Your task to perform on an android device: change the clock display to show seconds Image 0: 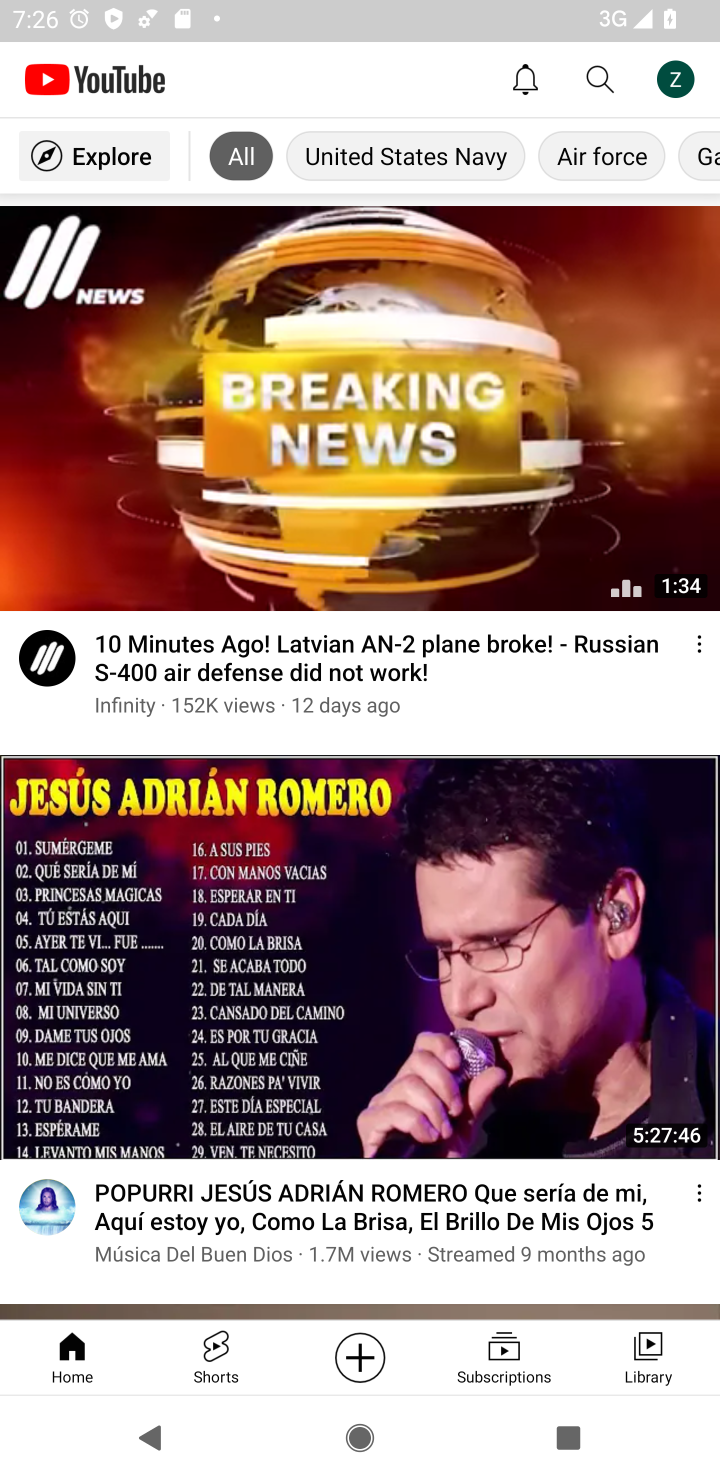
Step 0: press home button
Your task to perform on an android device: change the clock display to show seconds Image 1: 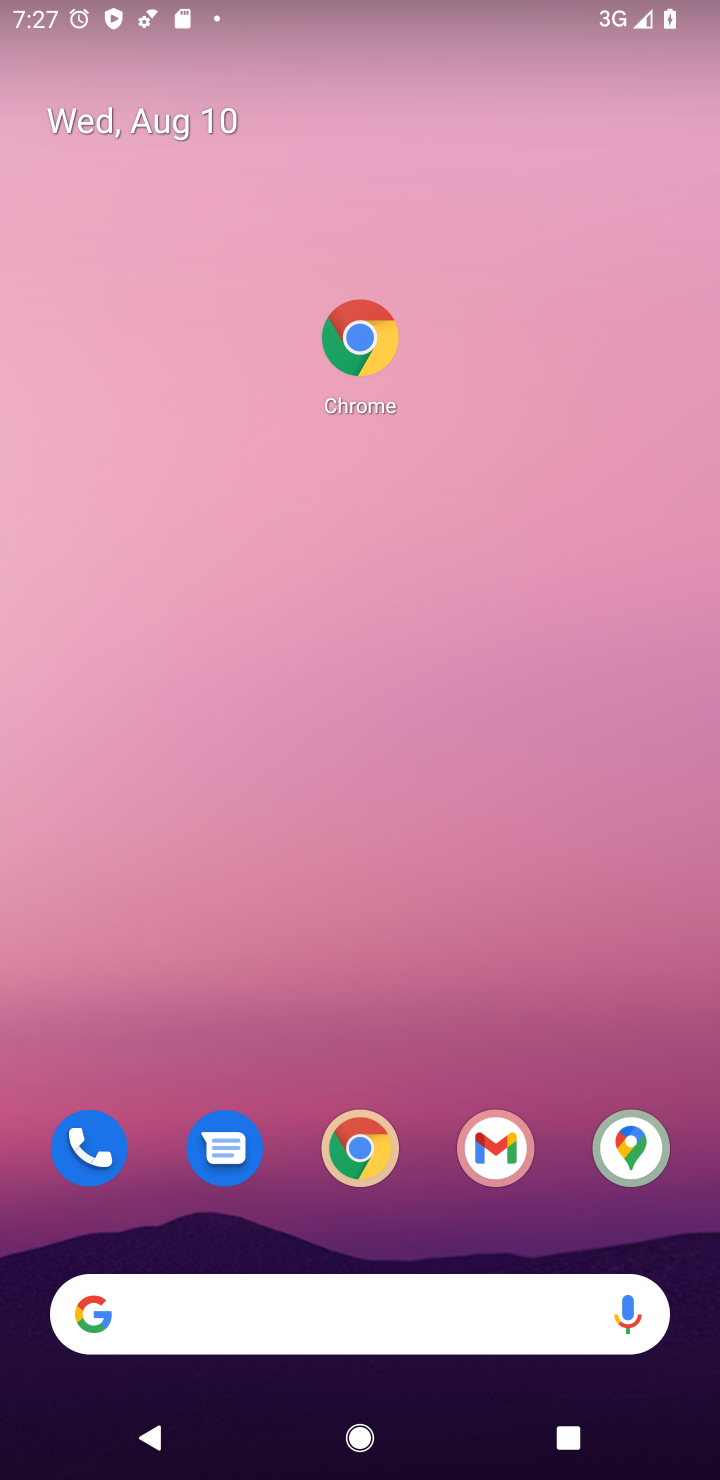
Step 1: drag from (427, 1111) to (583, 290)
Your task to perform on an android device: change the clock display to show seconds Image 2: 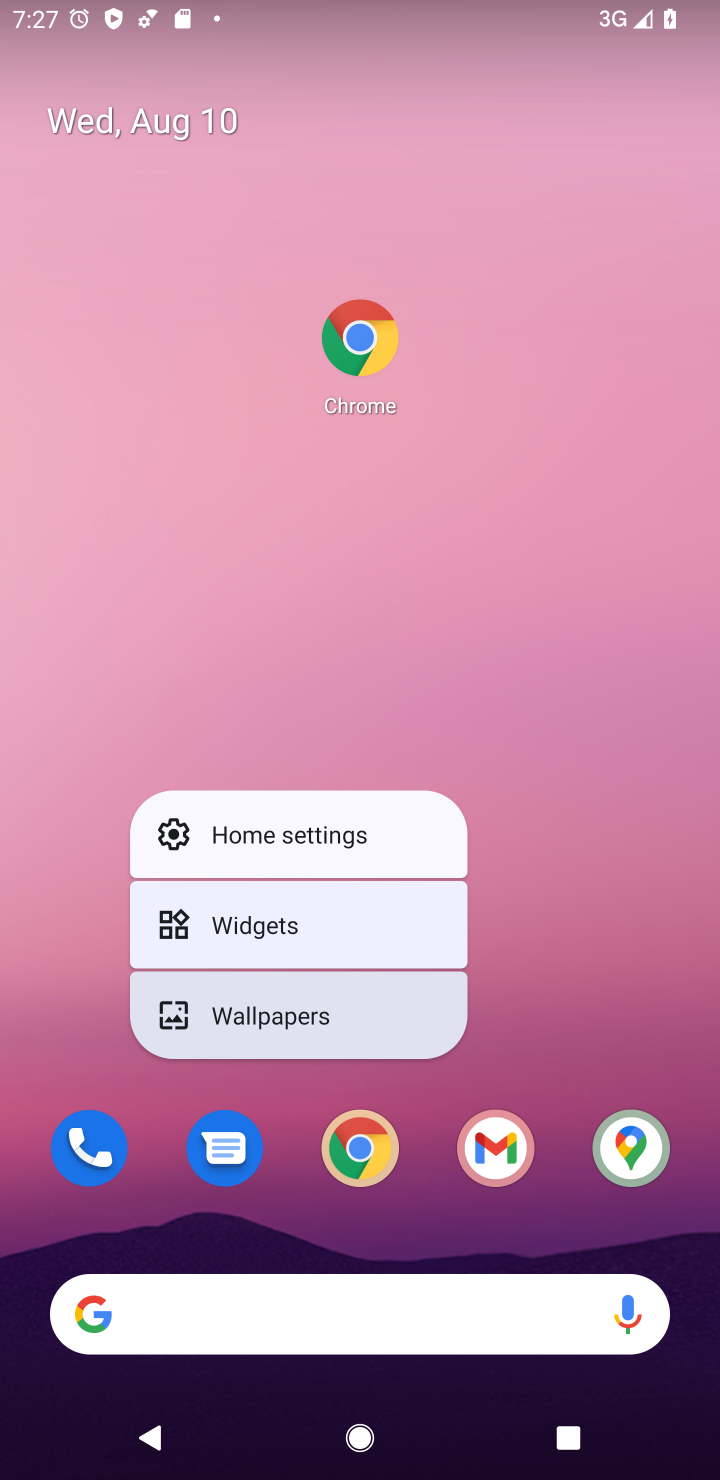
Step 2: drag from (578, 828) to (639, 0)
Your task to perform on an android device: change the clock display to show seconds Image 3: 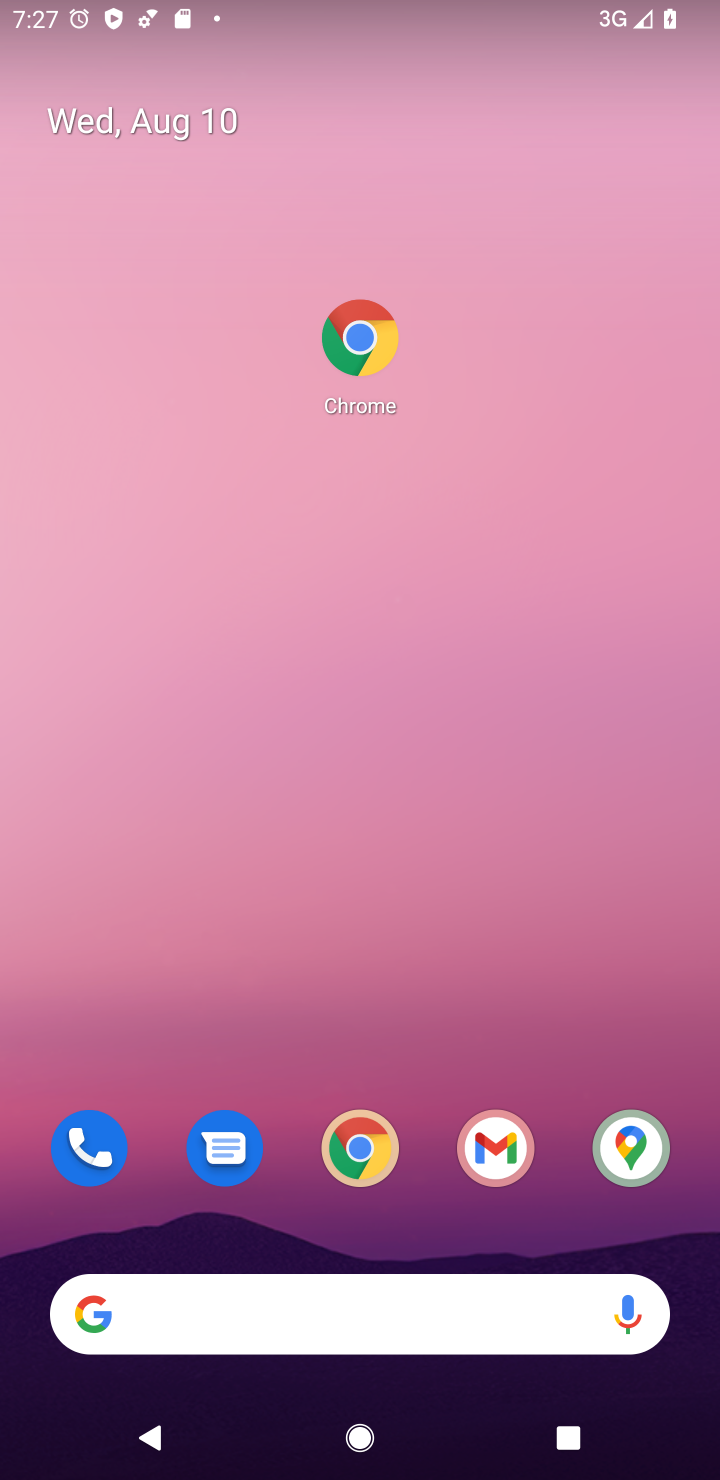
Step 3: drag from (206, 1040) to (160, 20)
Your task to perform on an android device: change the clock display to show seconds Image 4: 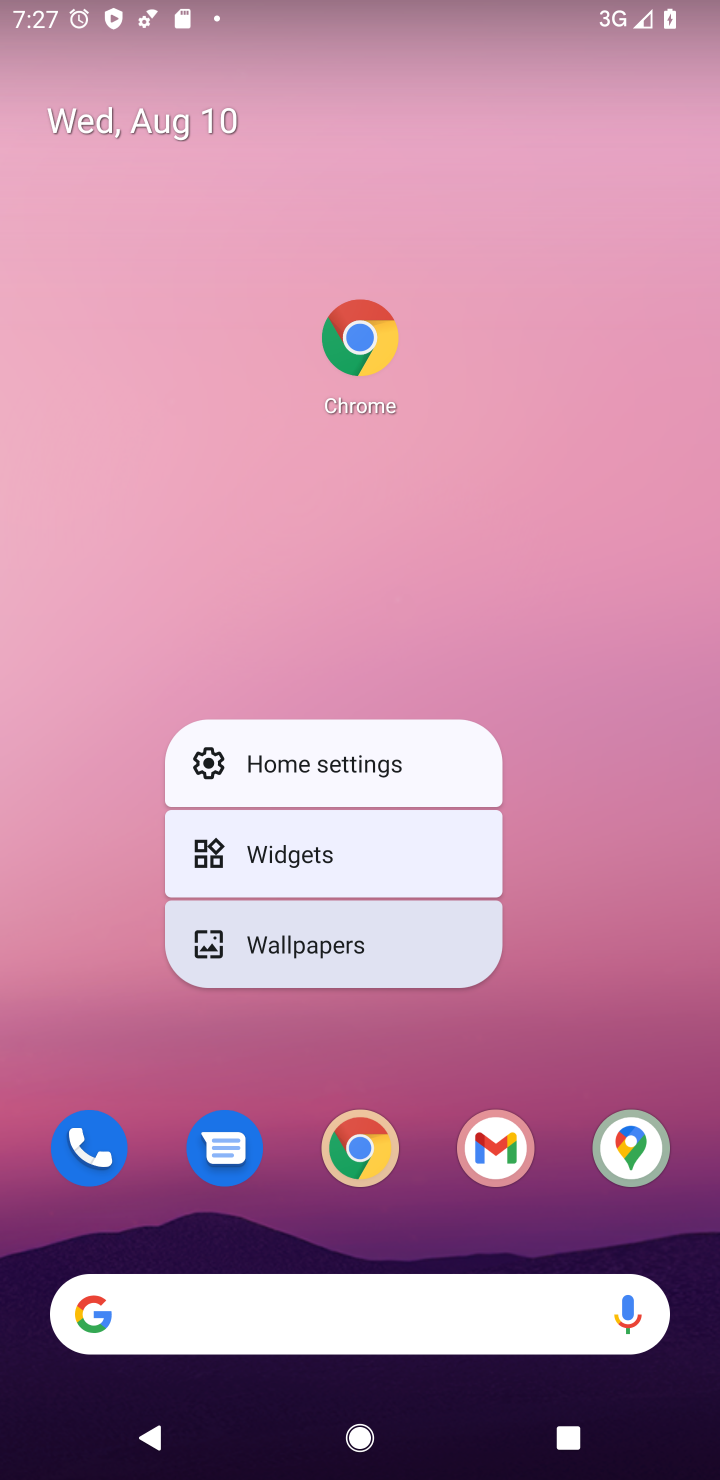
Step 4: click (610, 1084)
Your task to perform on an android device: change the clock display to show seconds Image 5: 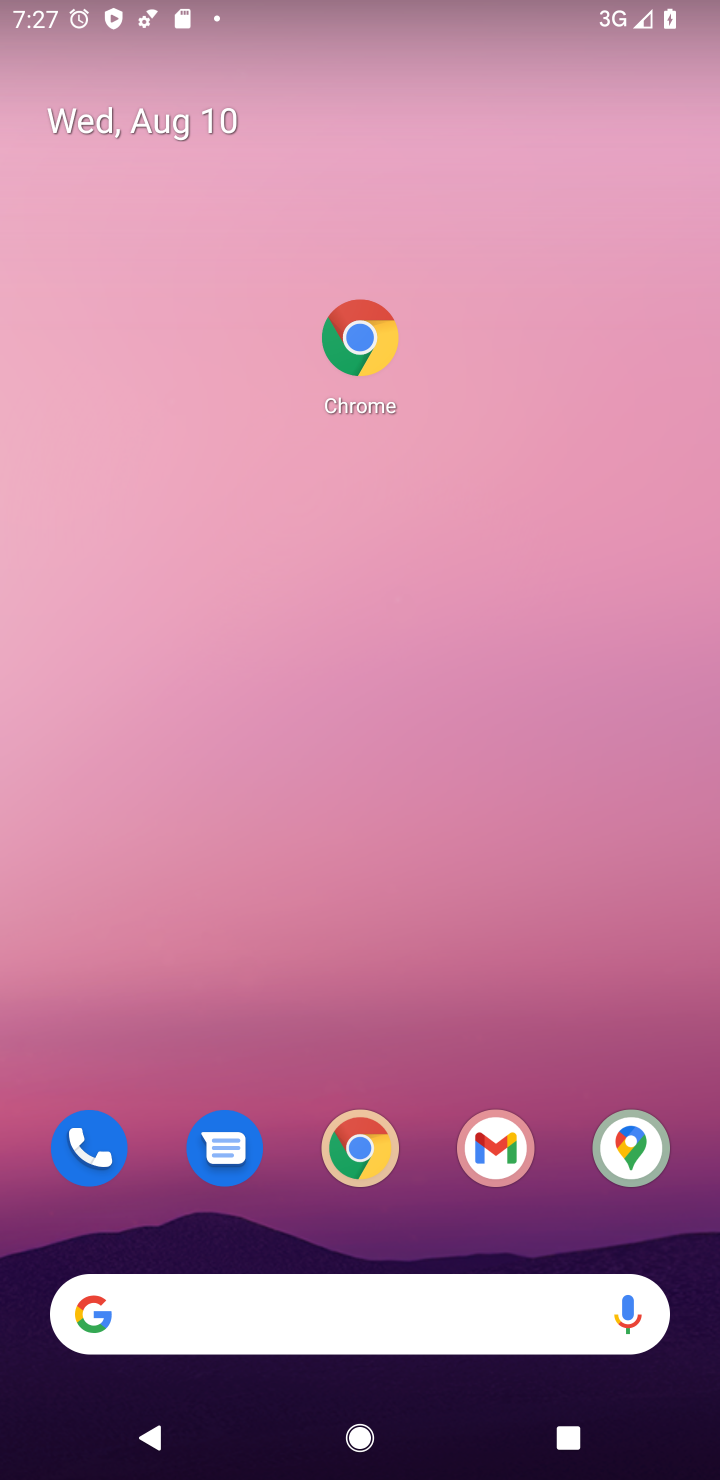
Step 5: drag from (610, 1084) to (606, 233)
Your task to perform on an android device: change the clock display to show seconds Image 6: 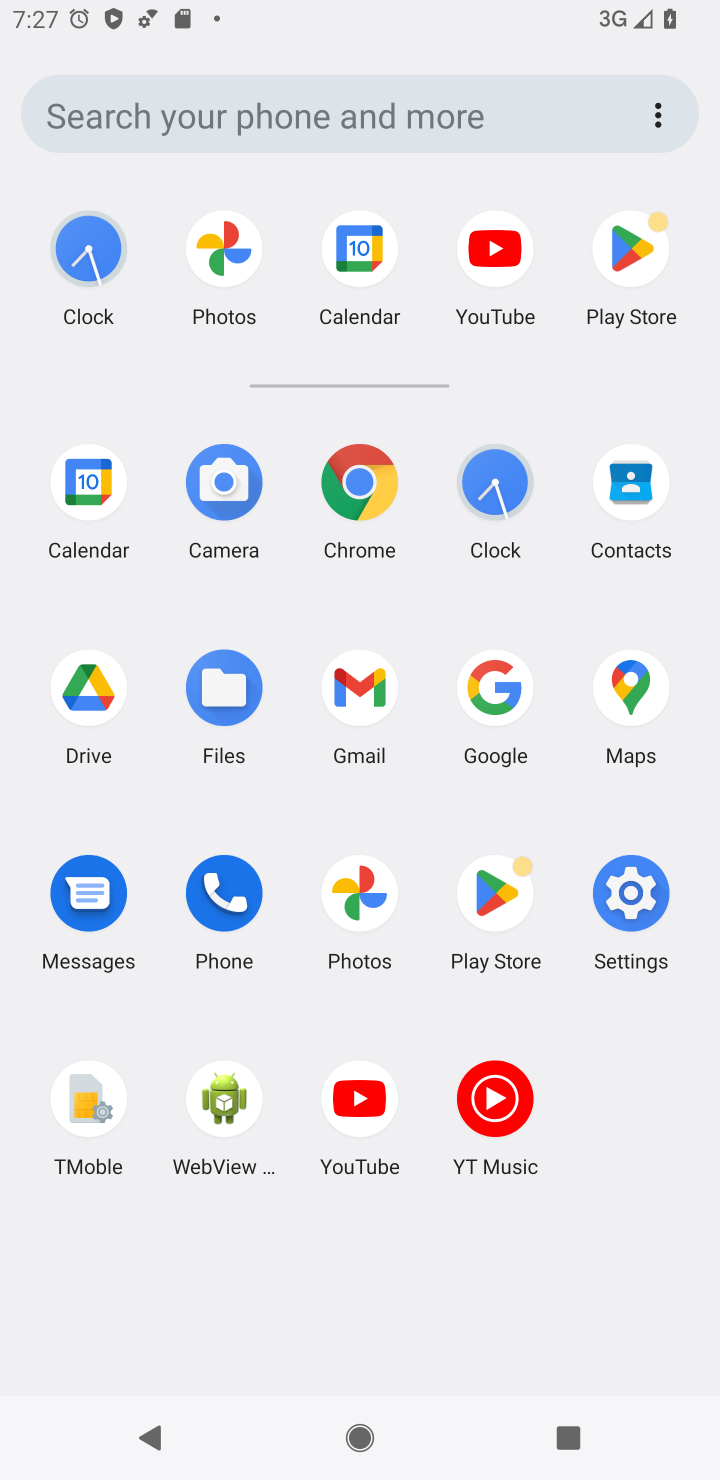
Step 6: click (478, 509)
Your task to perform on an android device: change the clock display to show seconds Image 7: 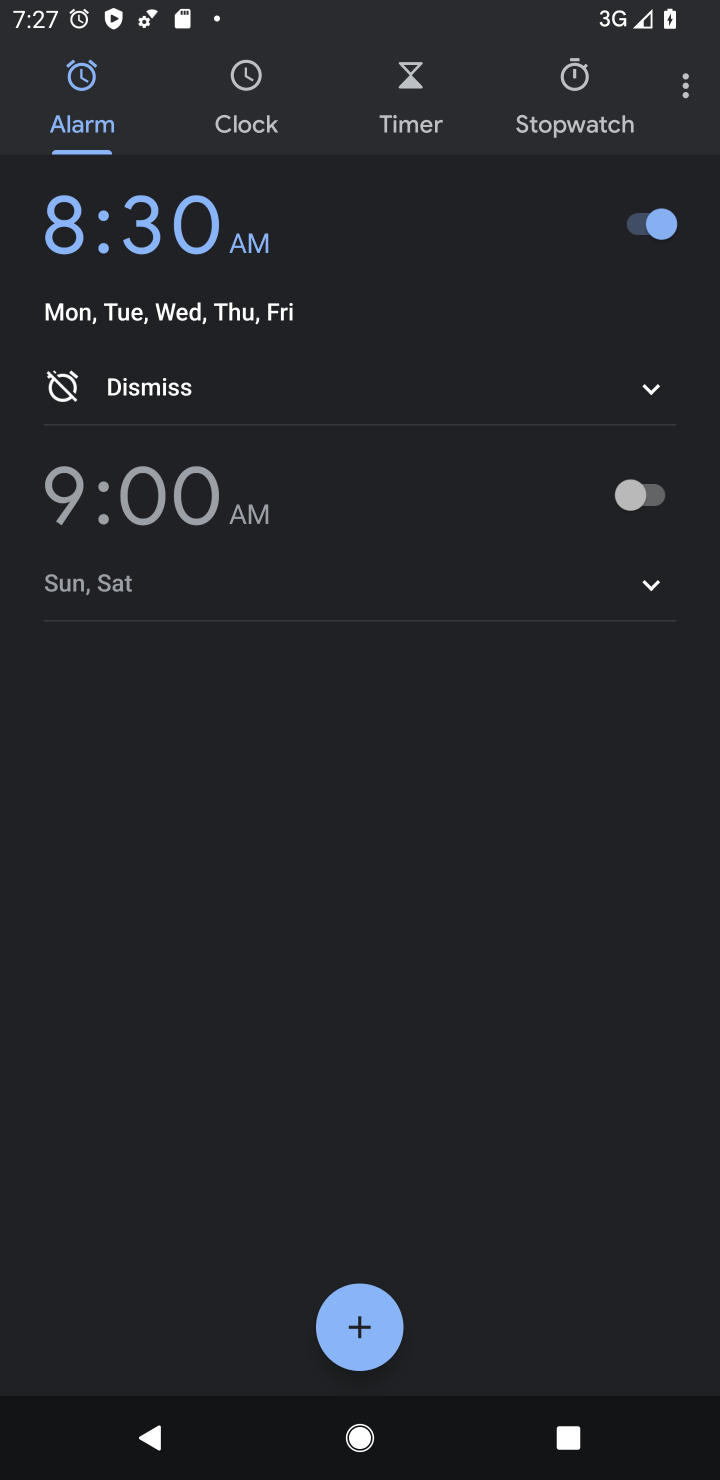
Step 7: click (681, 87)
Your task to perform on an android device: change the clock display to show seconds Image 8: 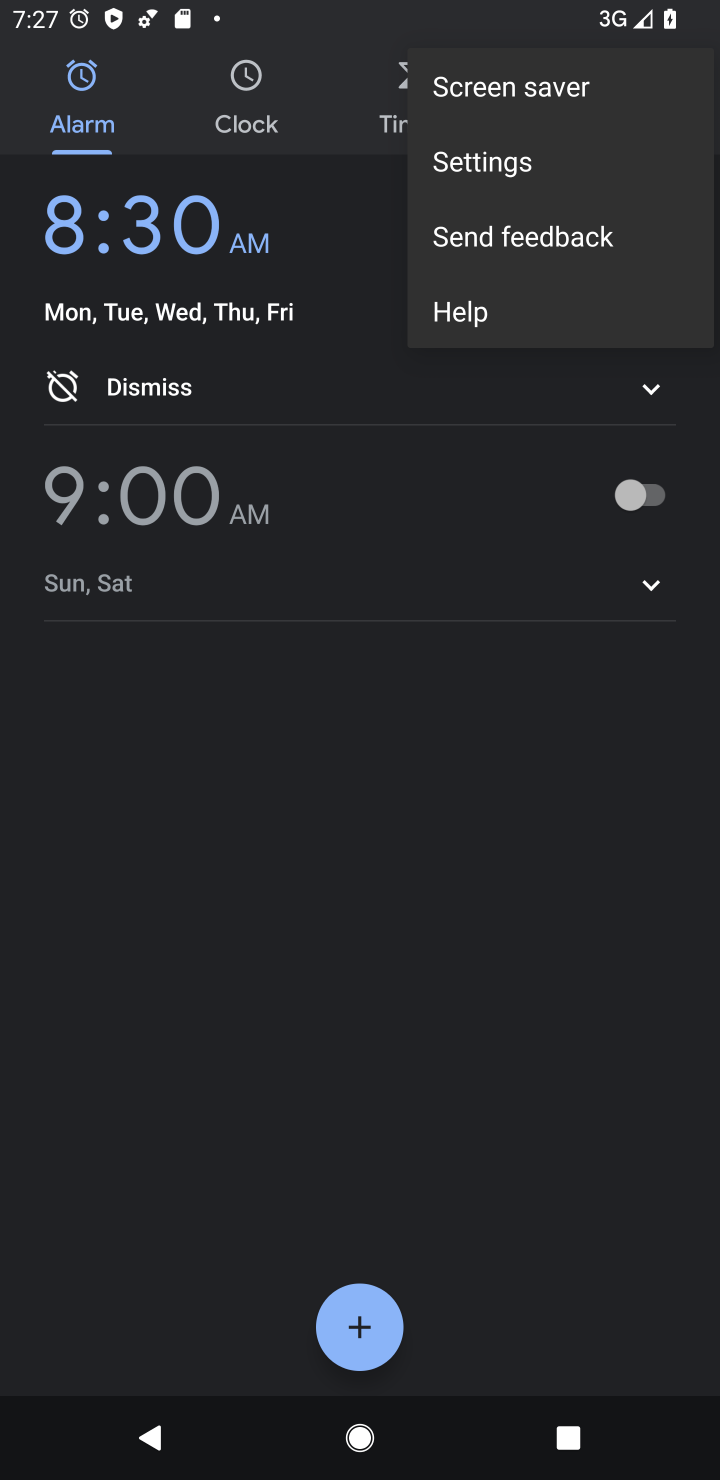
Step 8: click (555, 197)
Your task to perform on an android device: change the clock display to show seconds Image 9: 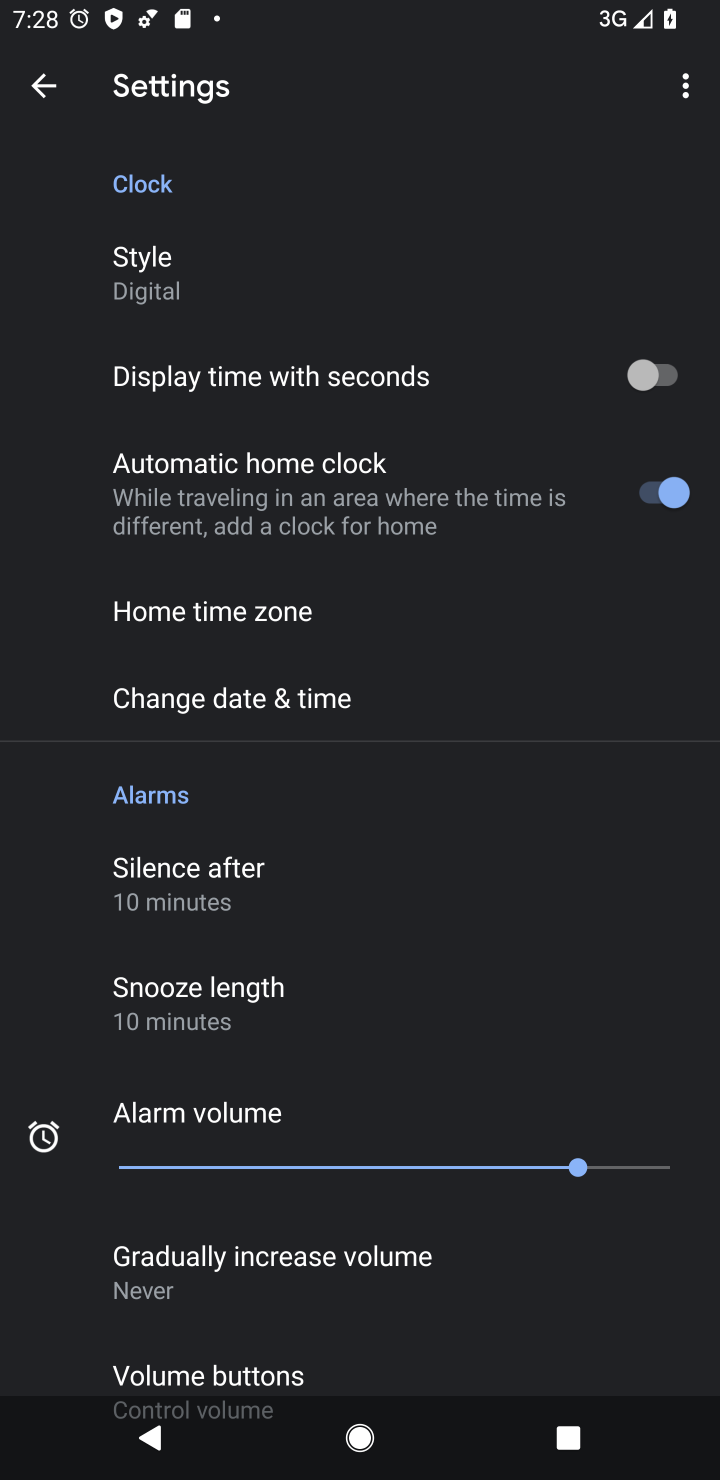
Step 9: click (651, 375)
Your task to perform on an android device: change the clock display to show seconds Image 10: 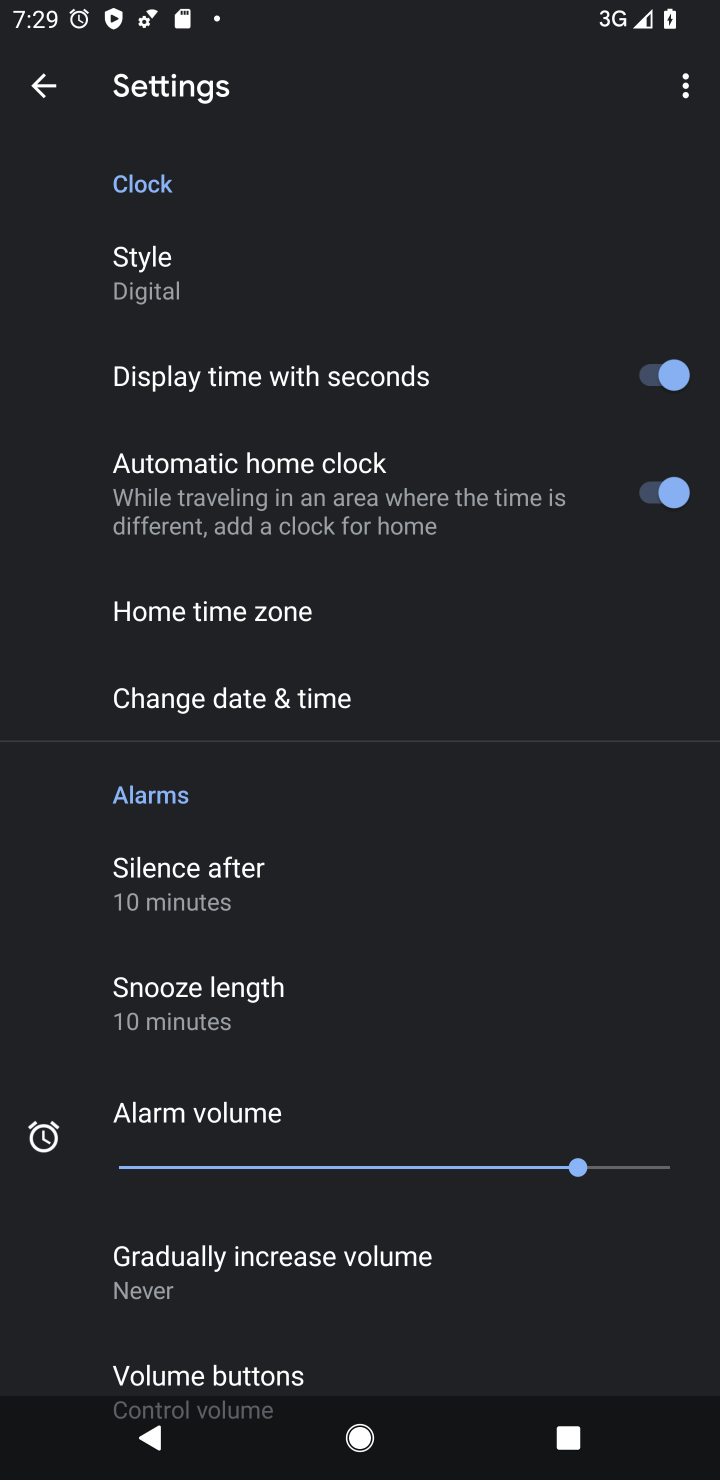
Step 10: task complete